Your task to perform on an android device: find snoozed emails in the gmail app Image 0: 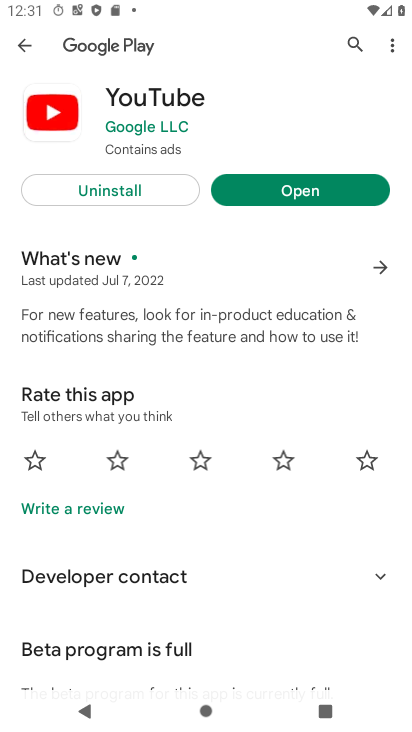
Step 0: press home button
Your task to perform on an android device: find snoozed emails in the gmail app Image 1: 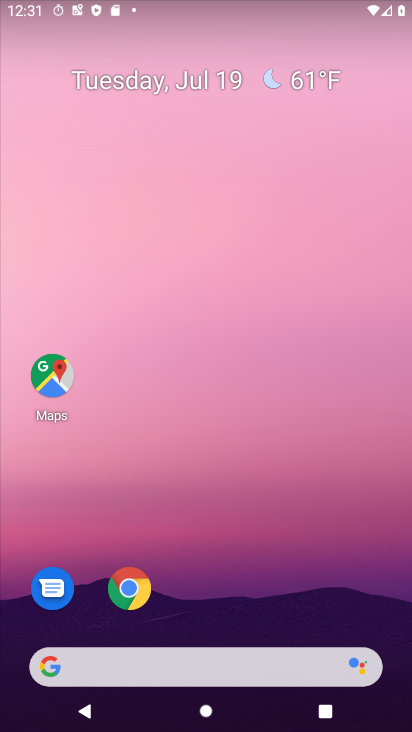
Step 1: drag from (290, 561) to (317, 49)
Your task to perform on an android device: find snoozed emails in the gmail app Image 2: 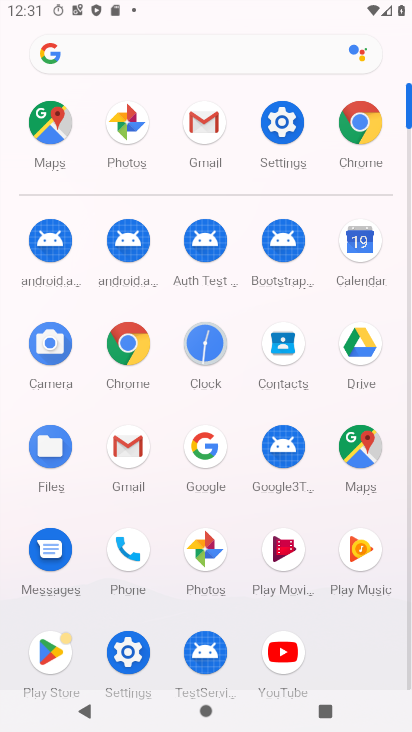
Step 2: click (133, 432)
Your task to perform on an android device: find snoozed emails in the gmail app Image 3: 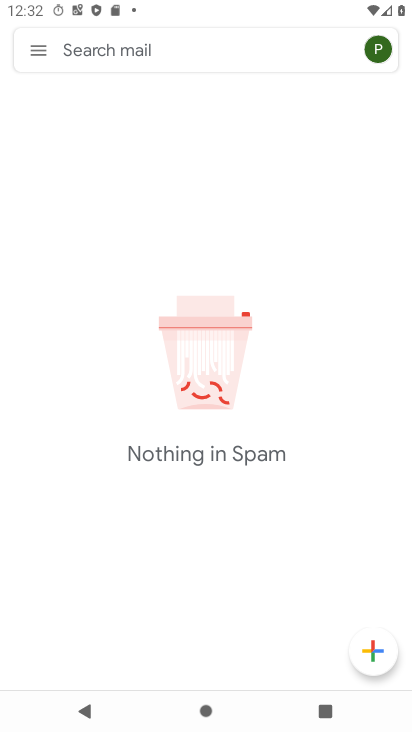
Step 3: click (36, 57)
Your task to perform on an android device: find snoozed emails in the gmail app Image 4: 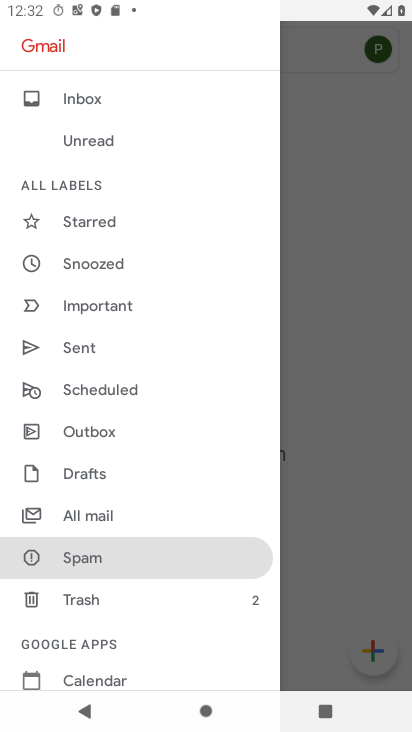
Step 4: click (90, 254)
Your task to perform on an android device: find snoozed emails in the gmail app Image 5: 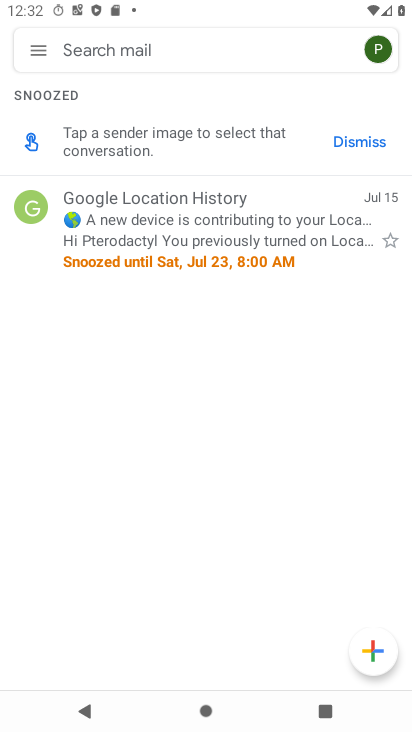
Step 5: task complete